Your task to perform on an android device: turn off location Image 0: 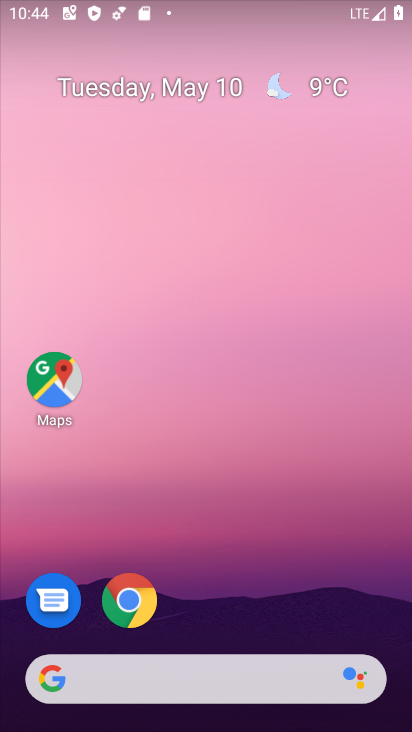
Step 0: drag from (250, 385) to (230, 144)
Your task to perform on an android device: turn off location Image 1: 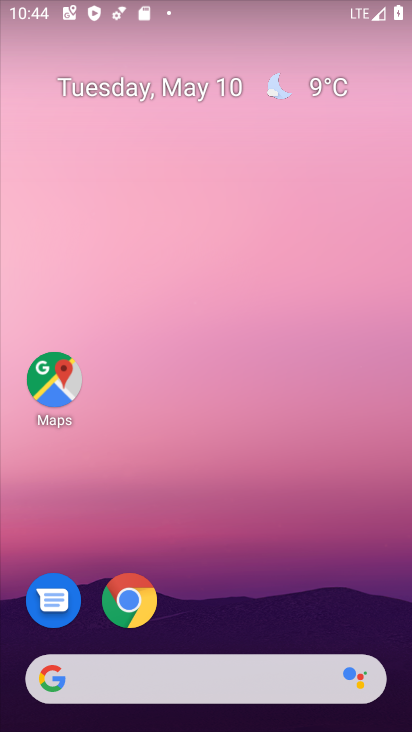
Step 1: drag from (284, 514) to (259, 97)
Your task to perform on an android device: turn off location Image 2: 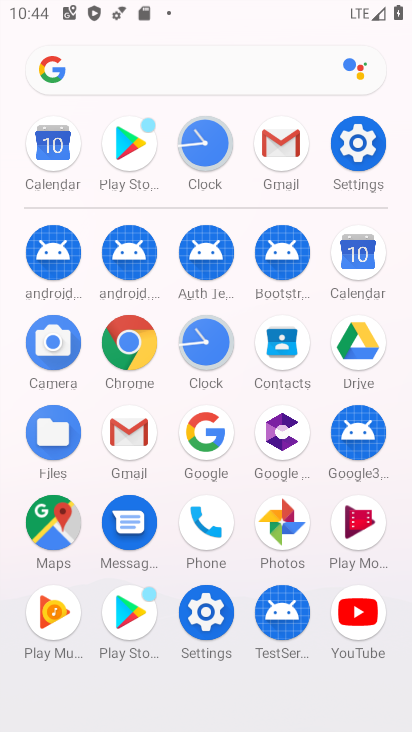
Step 2: click (353, 150)
Your task to perform on an android device: turn off location Image 3: 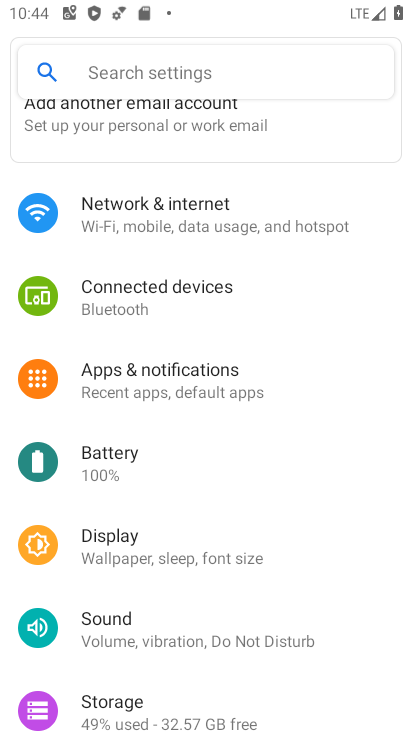
Step 3: drag from (207, 643) to (238, 250)
Your task to perform on an android device: turn off location Image 4: 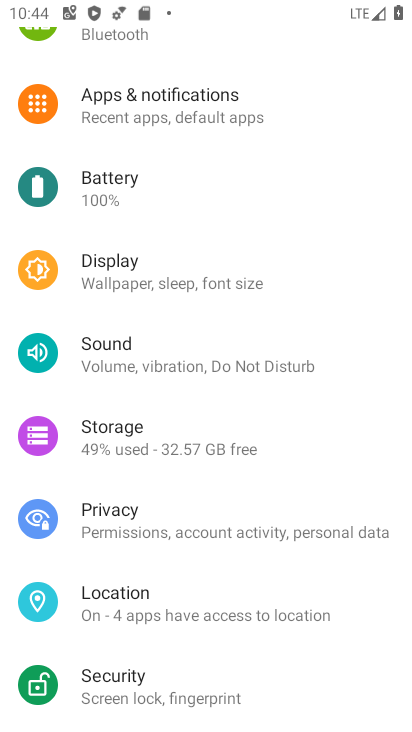
Step 4: click (165, 597)
Your task to perform on an android device: turn off location Image 5: 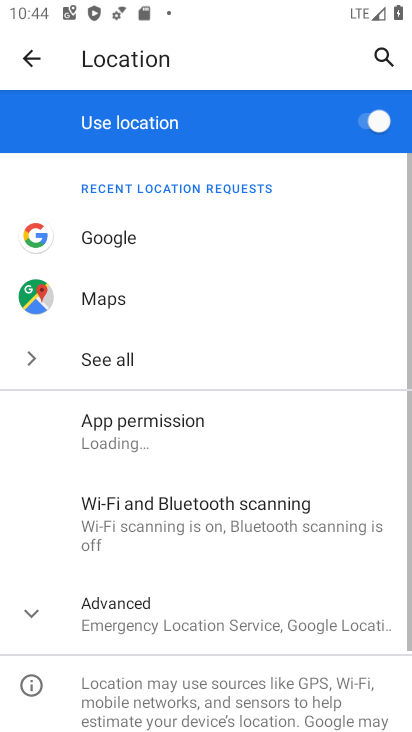
Step 5: click (381, 106)
Your task to perform on an android device: turn off location Image 6: 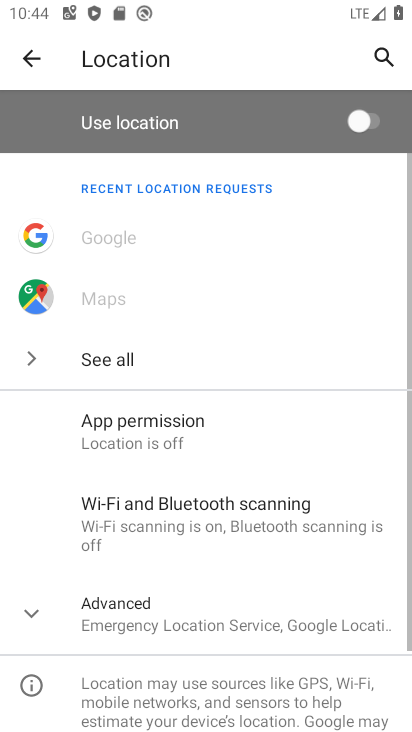
Step 6: task complete